Your task to perform on an android device: turn off wifi Image 0: 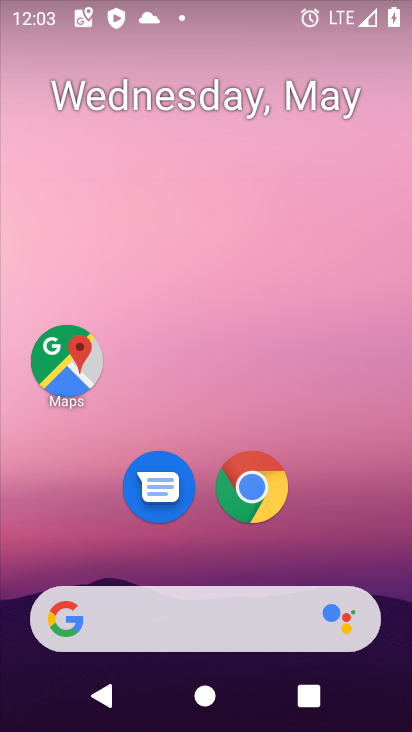
Step 0: drag from (211, 559) to (220, 131)
Your task to perform on an android device: turn off wifi Image 1: 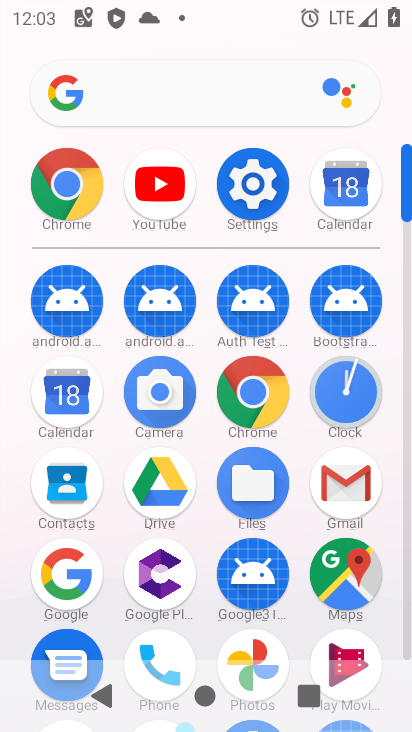
Step 1: click (239, 193)
Your task to perform on an android device: turn off wifi Image 2: 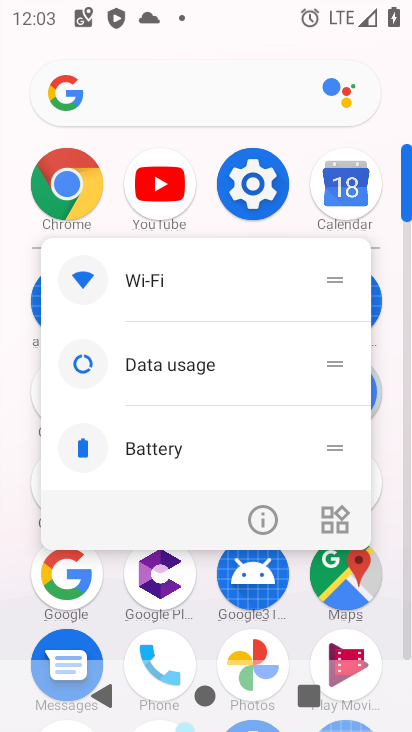
Step 2: click (136, 275)
Your task to perform on an android device: turn off wifi Image 3: 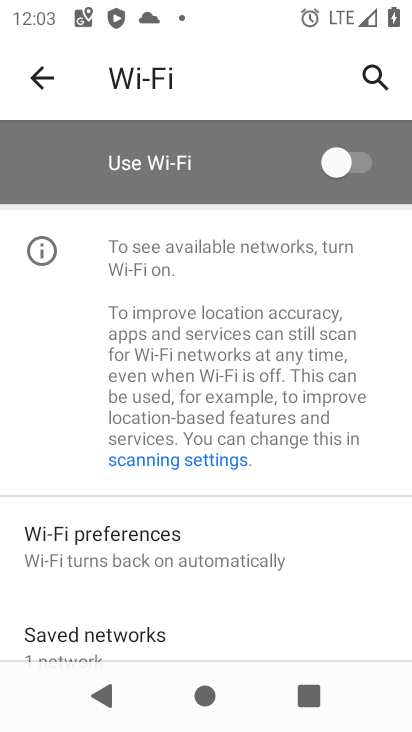
Step 3: task complete